Your task to perform on an android device: Open the stopwatch Image 0: 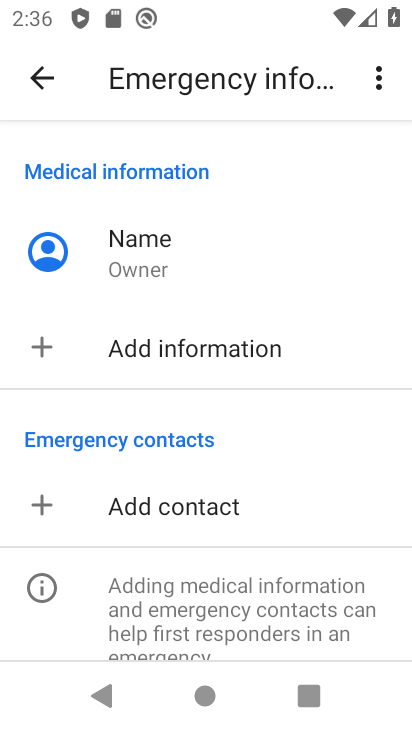
Step 0: press home button
Your task to perform on an android device: Open the stopwatch Image 1: 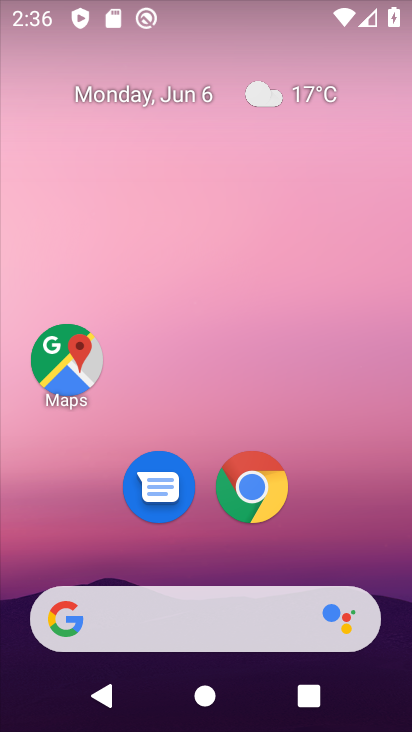
Step 1: drag from (108, 591) to (205, 76)
Your task to perform on an android device: Open the stopwatch Image 2: 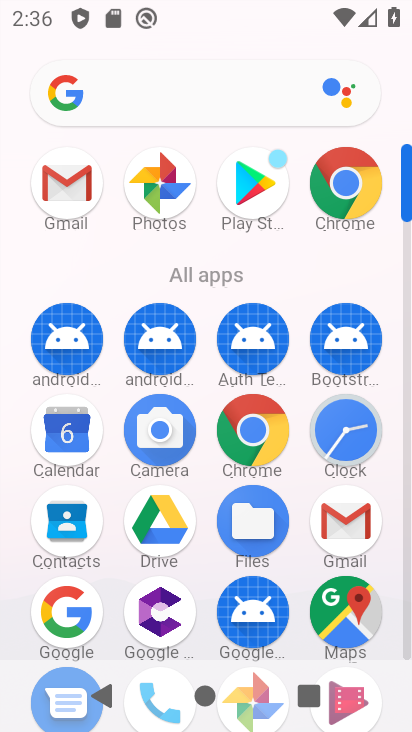
Step 2: drag from (153, 557) to (267, 259)
Your task to perform on an android device: Open the stopwatch Image 3: 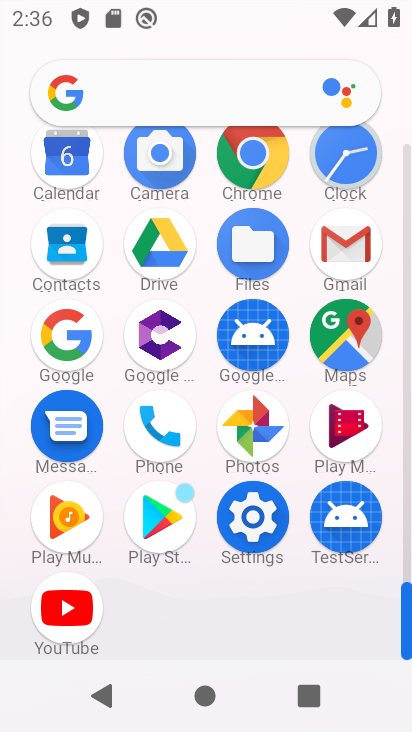
Step 3: click (342, 160)
Your task to perform on an android device: Open the stopwatch Image 4: 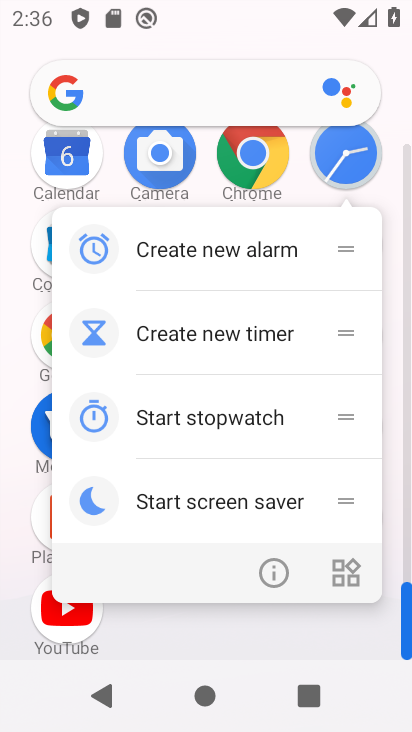
Step 4: click (340, 161)
Your task to perform on an android device: Open the stopwatch Image 5: 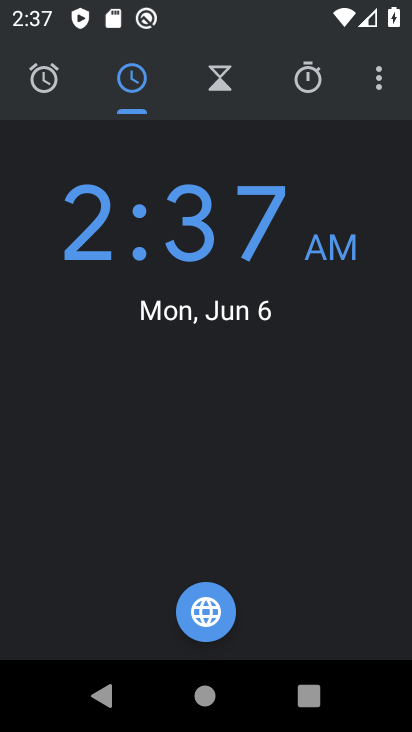
Step 5: click (321, 94)
Your task to perform on an android device: Open the stopwatch Image 6: 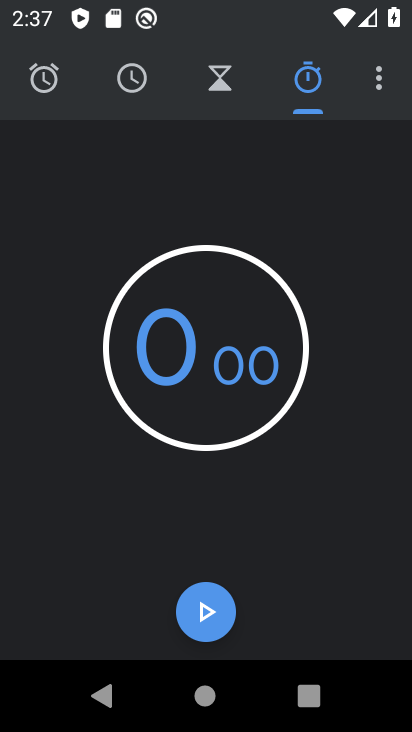
Step 6: click (213, 625)
Your task to perform on an android device: Open the stopwatch Image 7: 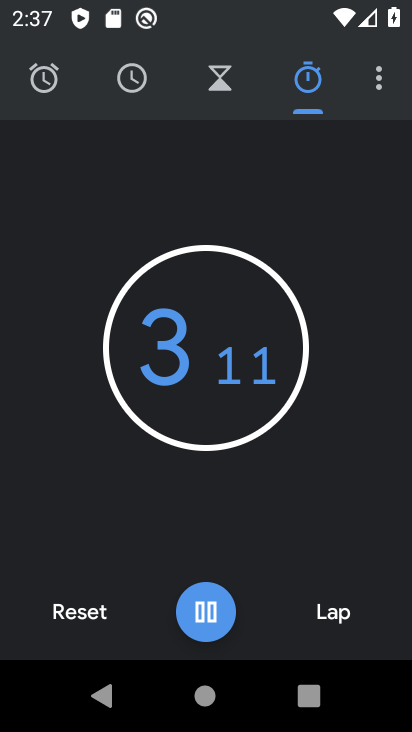
Step 7: task complete